Your task to perform on an android device: snooze an email in the gmail app Image 0: 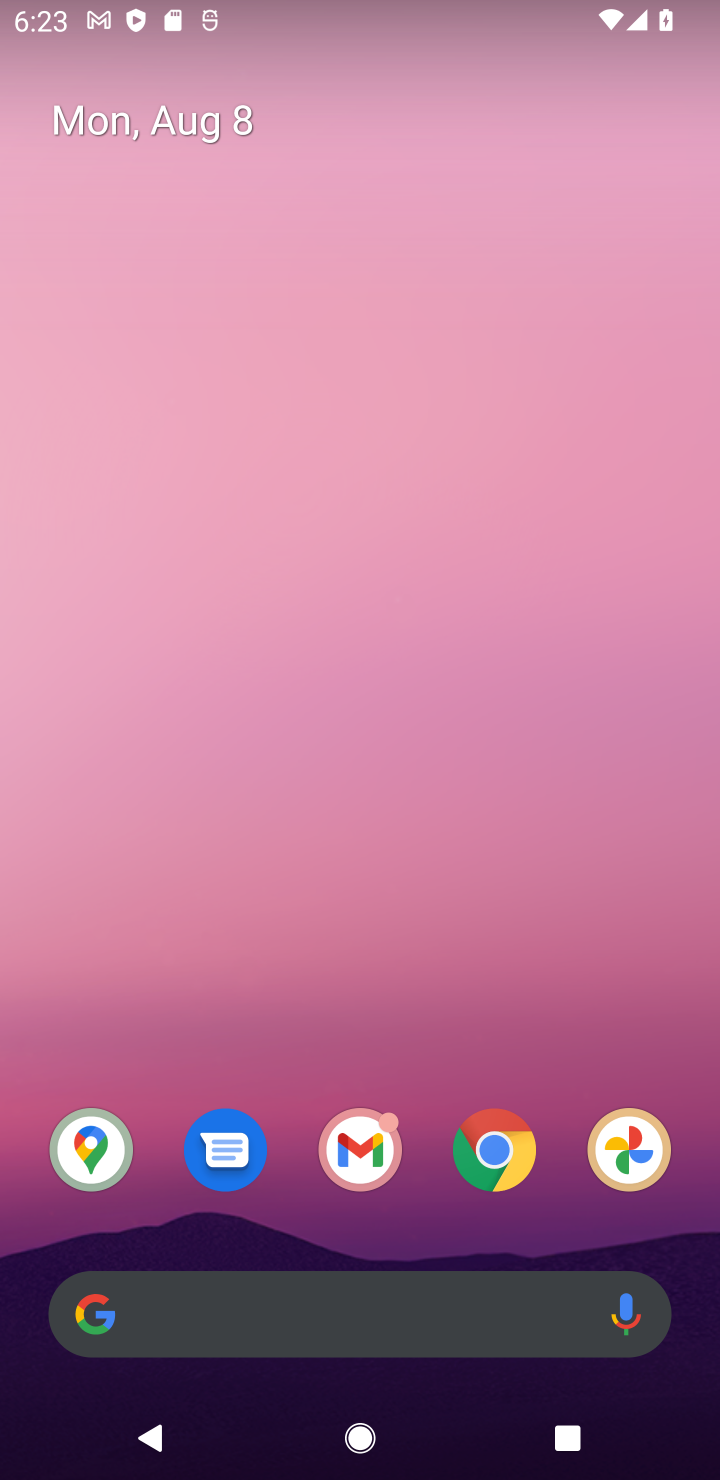
Step 0: click (368, 1163)
Your task to perform on an android device: snooze an email in the gmail app Image 1: 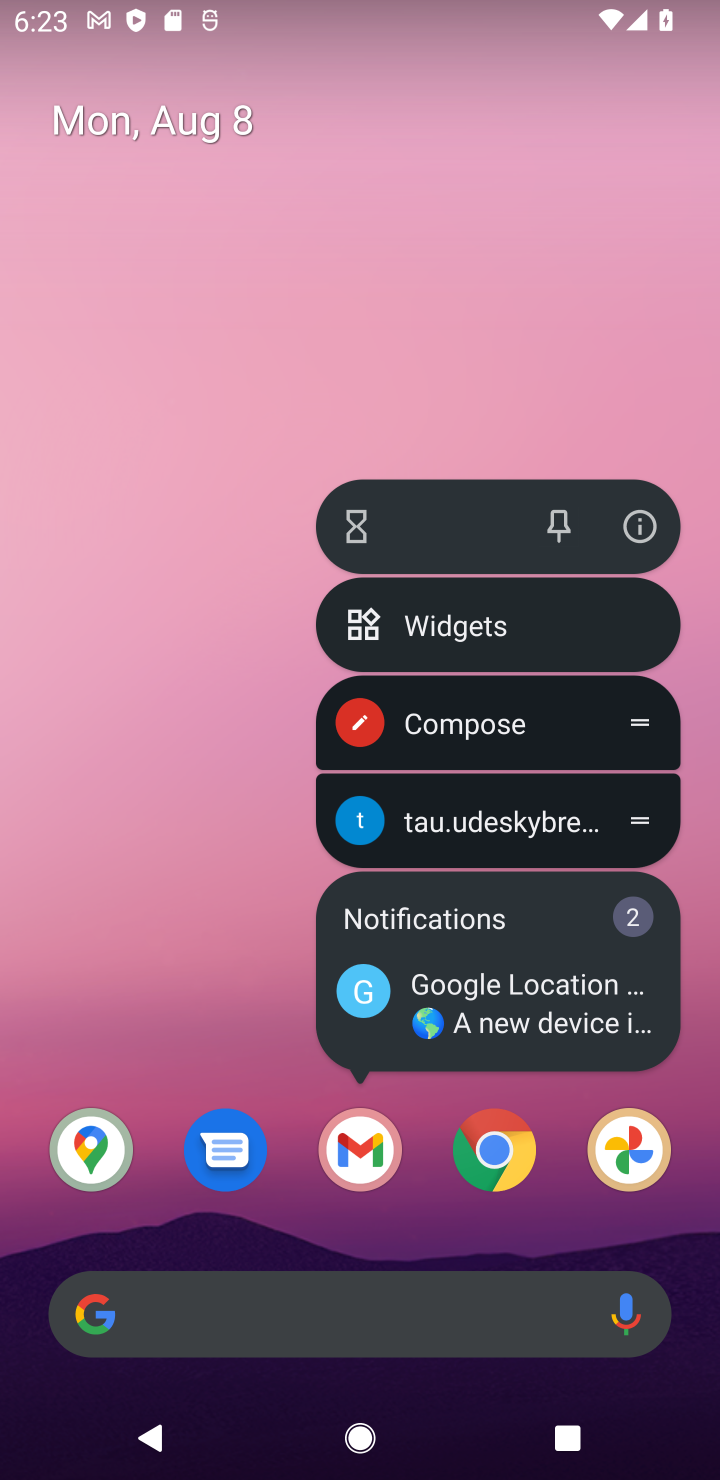
Step 1: click (250, 890)
Your task to perform on an android device: snooze an email in the gmail app Image 2: 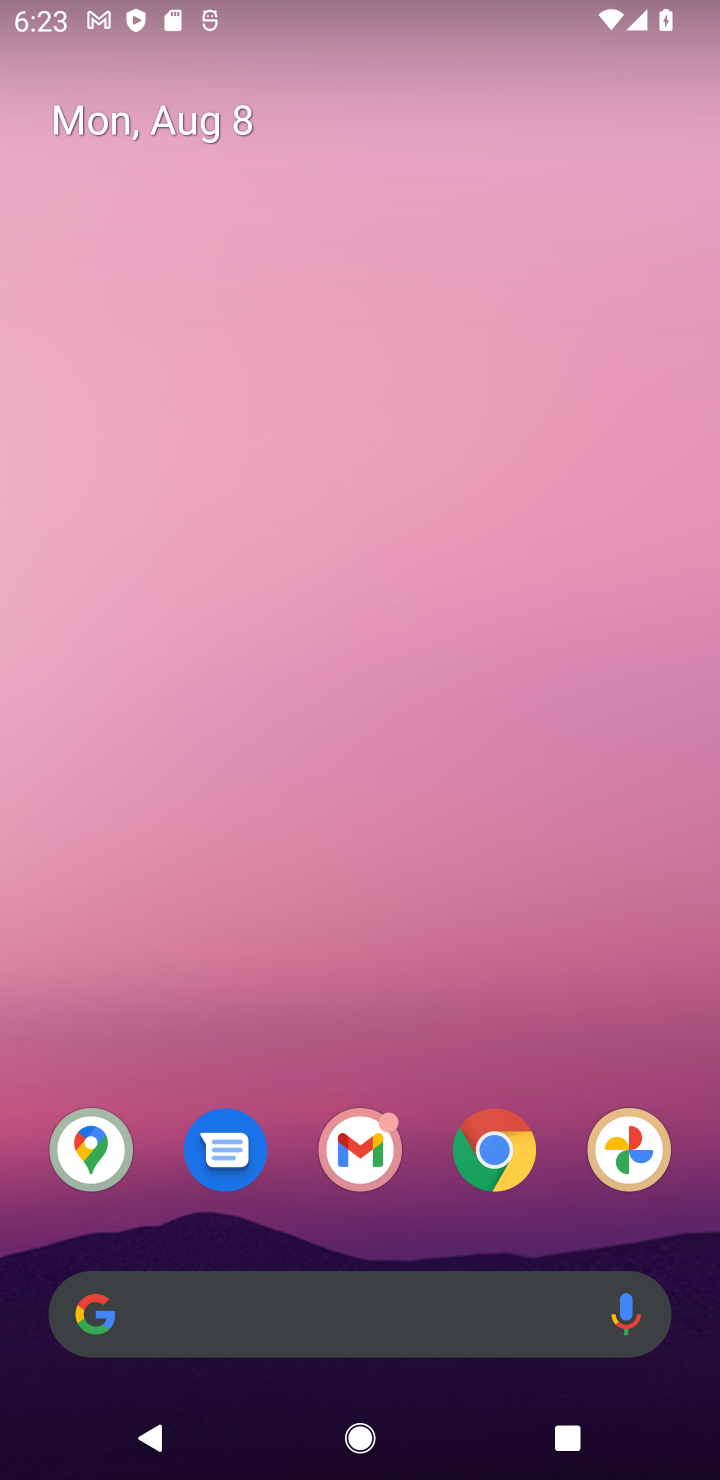
Step 2: click (354, 1168)
Your task to perform on an android device: snooze an email in the gmail app Image 3: 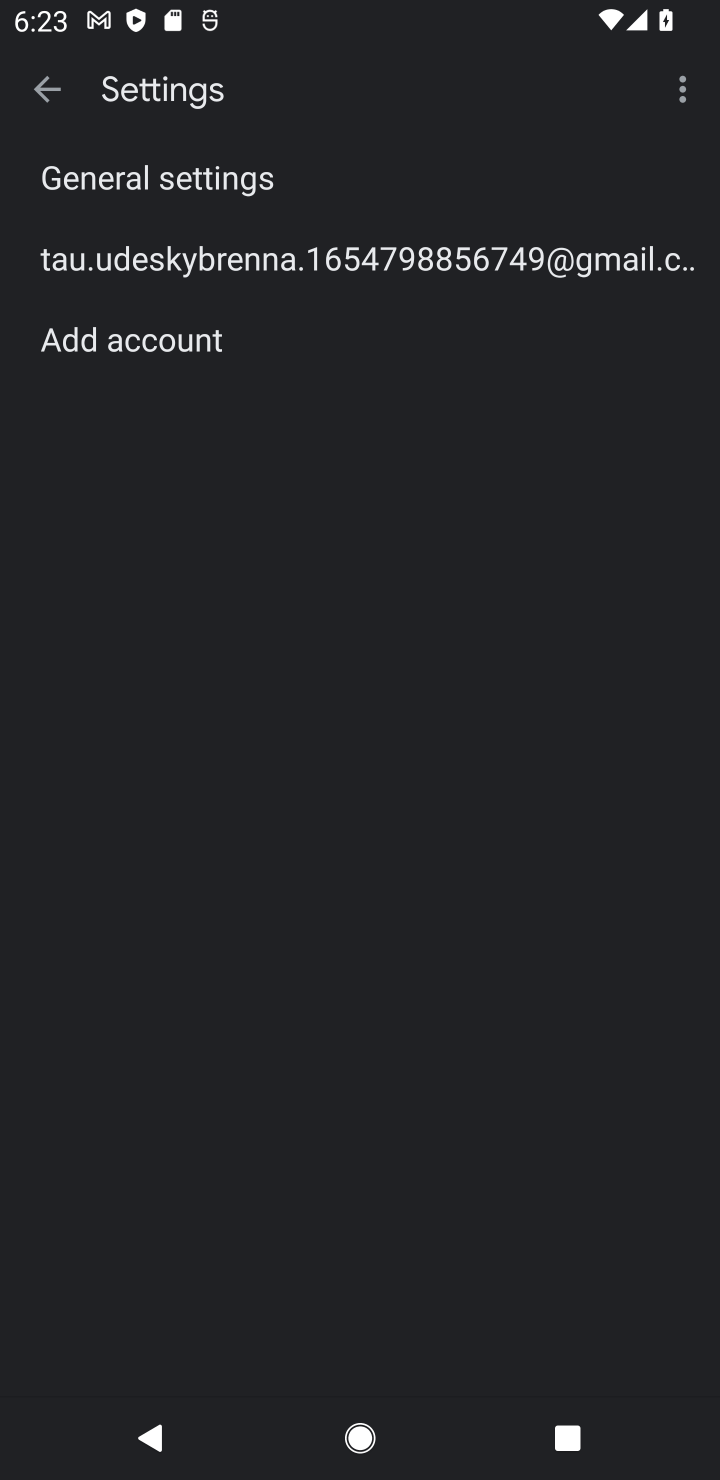
Step 3: task complete